Your task to perform on an android device: Go to battery settings Image 0: 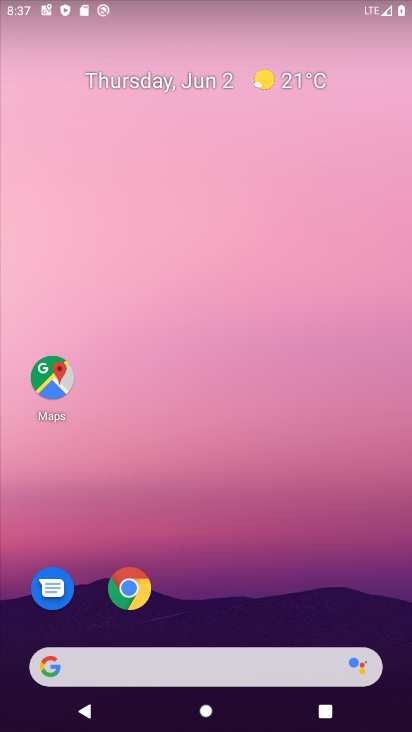
Step 0: drag from (272, 610) to (272, 377)
Your task to perform on an android device: Go to battery settings Image 1: 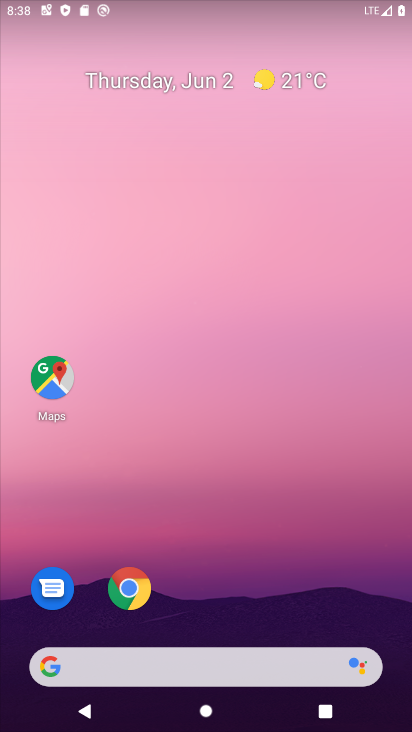
Step 1: drag from (234, 593) to (250, 92)
Your task to perform on an android device: Go to battery settings Image 2: 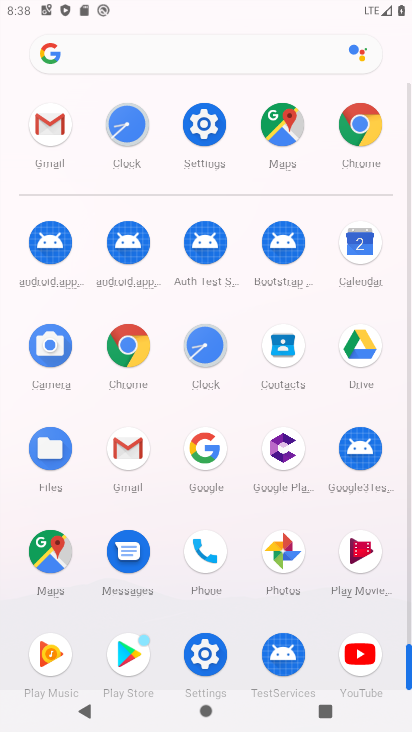
Step 2: click (218, 141)
Your task to perform on an android device: Go to battery settings Image 3: 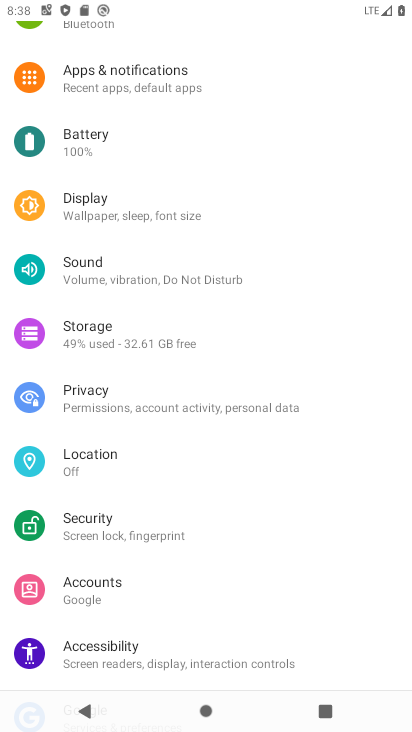
Step 3: click (108, 141)
Your task to perform on an android device: Go to battery settings Image 4: 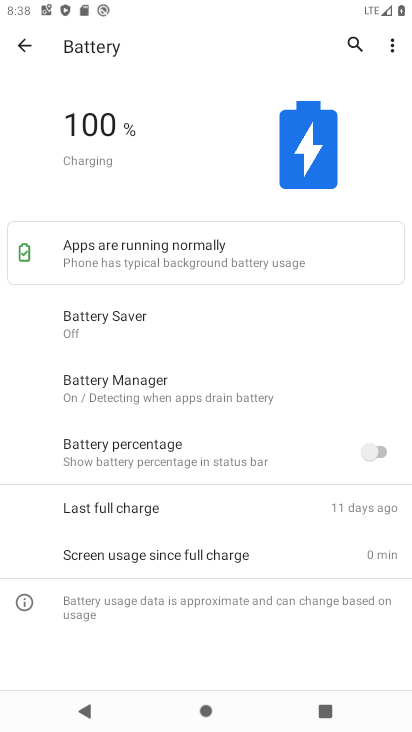
Step 4: task complete